Your task to perform on an android device: Go to Yahoo.com Image 0: 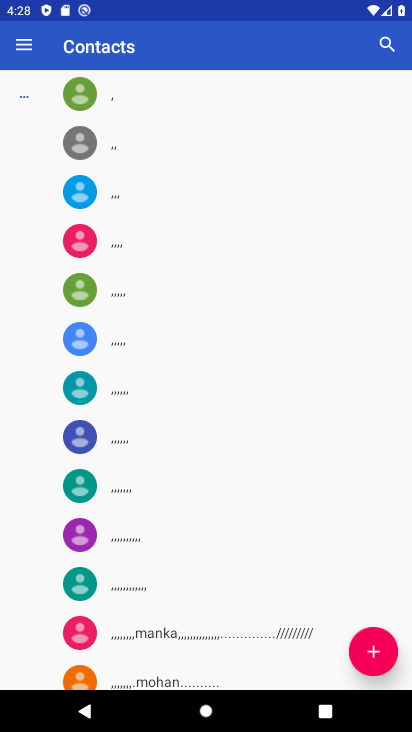
Step 0: press back button
Your task to perform on an android device: Go to Yahoo.com Image 1: 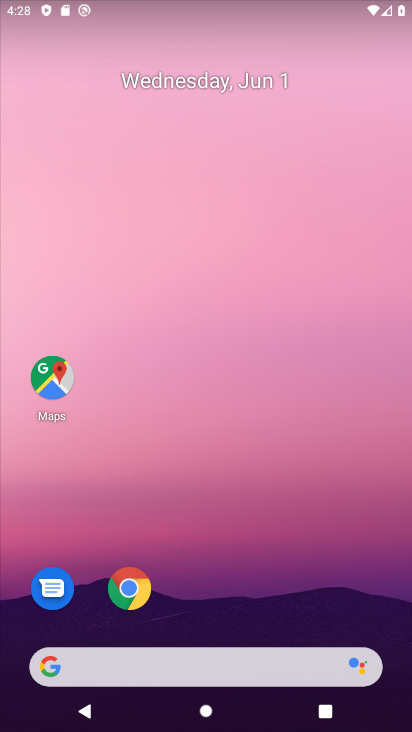
Step 1: click (129, 587)
Your task to perform on an android device: Go to Yahoo.com Image 2: 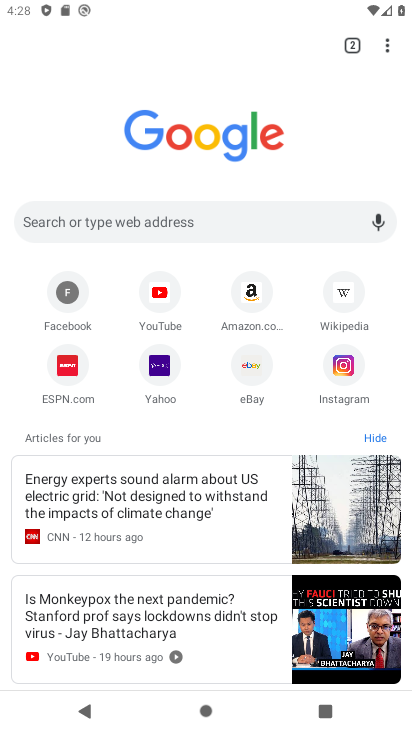
Step 2: click (157, 363)
Your task to perform on an android device: Go to Yahoo.com Image 3: 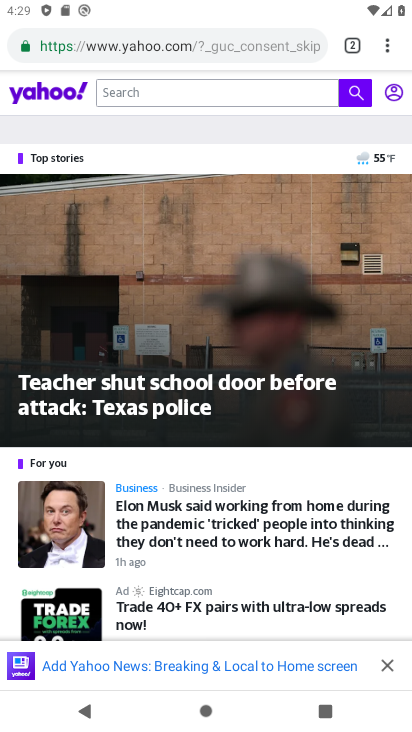
Step 3: task complete